Your task to perform on an android device: Do I have any events today? Image 0: 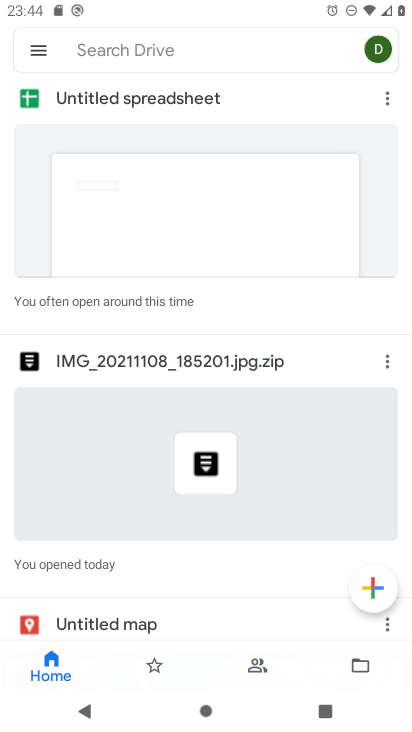
Step 0: press home button
Your task to perform on an android device: Do I have any events today? Image 1: 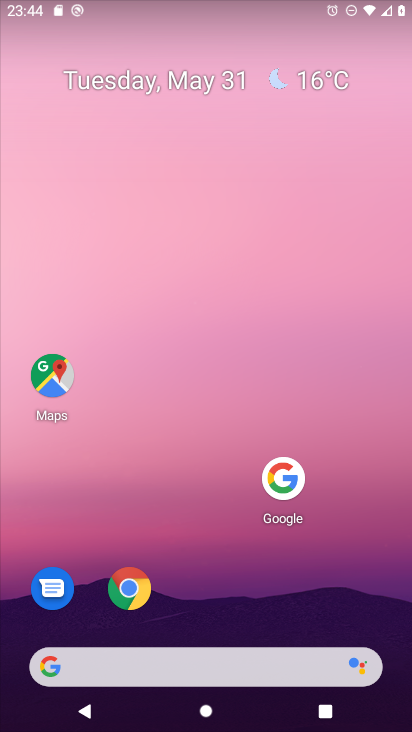
Step 1: drag from (174, 667) to (315, 136)
Your task to perform on an android device: Do I have any events today? Image 2: 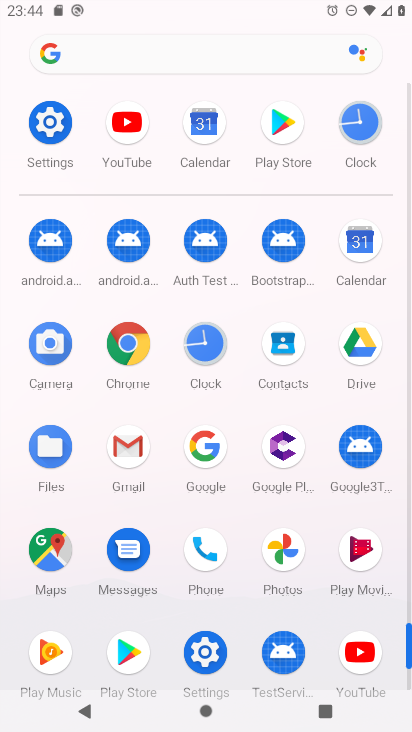
Step 2: click (363, 238)
Your task to perform on an android device: Do I have any events today? Image 3: 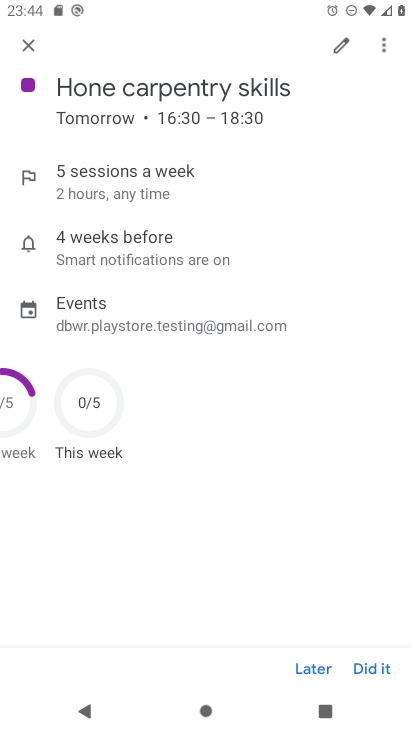
Step 3: click (29, 46)
Your task to perform on an android device: Do I have any events today? Image 4: 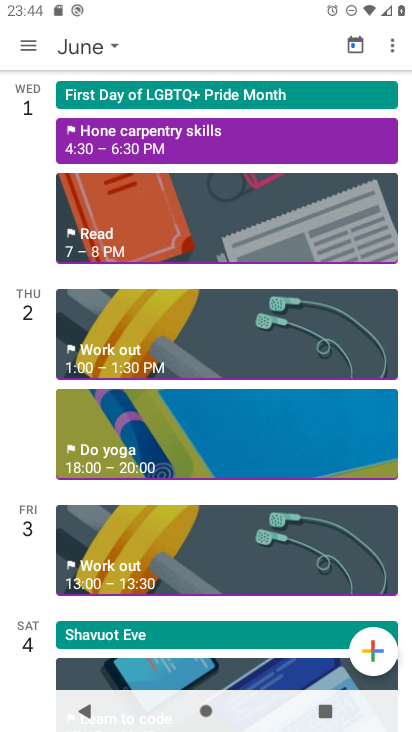
Step 4: click (77, 52)
Your task to perform on an android device: Do I have any events today? Image 5: 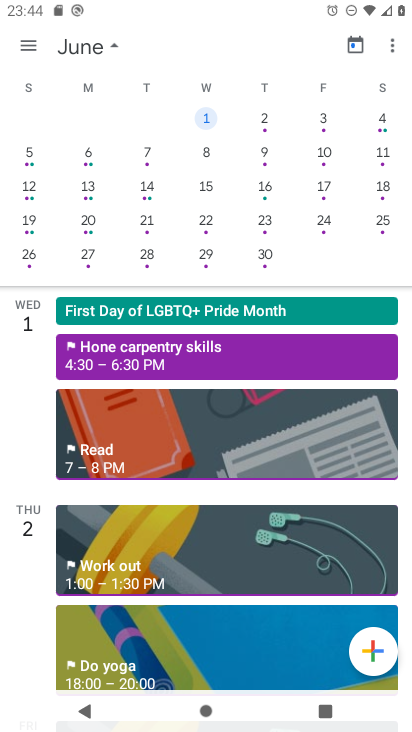
Step 5: drag from (146, 217) to (411, 236)
Your task to perform on an android device: Do I have any events today? Image 6: 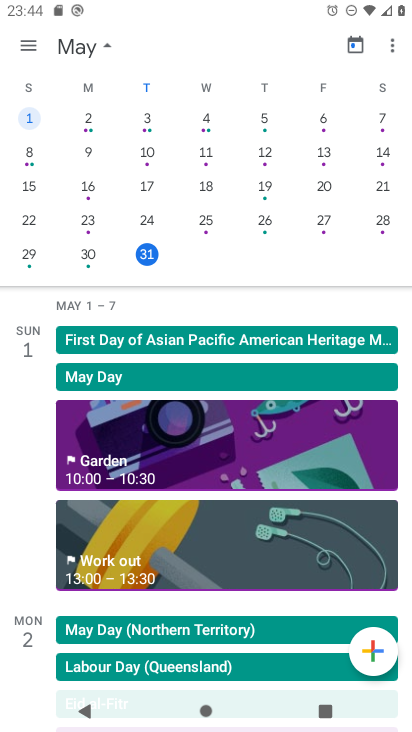
Step 6: click (143, 256)
Your task to perform on an android device: Do I have any events today? Image 7: 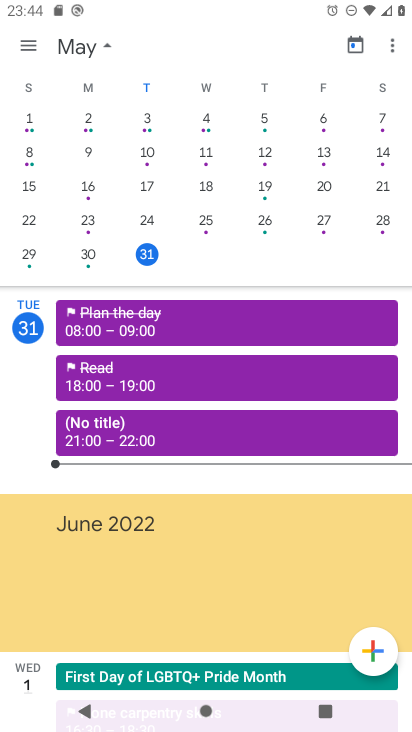
Step 7: click (27, 48)
Your task to perform on an android device: Do I have any events today? Image 8: 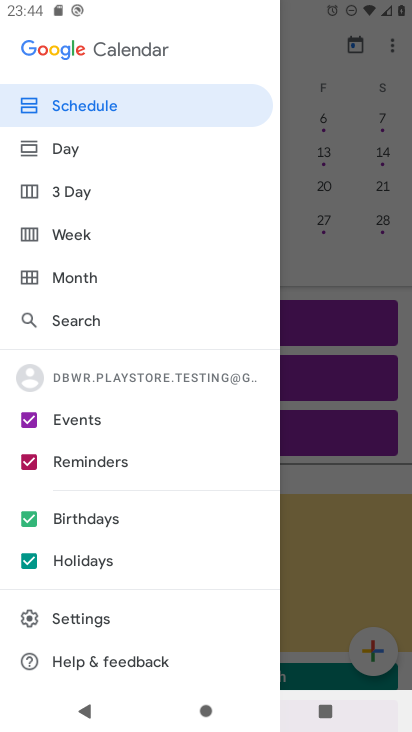
Step 8: click (85, 101)
Your task to perform on an android device: Do I have any events today? Image 9: 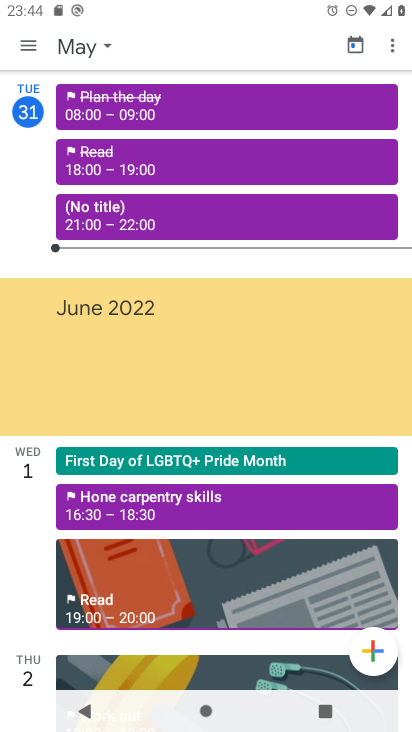
Step 9: click (135, 211)
Your task to perform on an android device: Do I have any events today? Image 10: 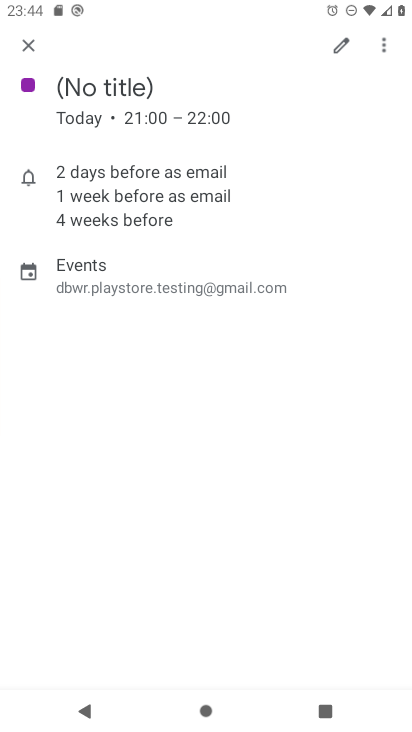
Step 10: task complete